Your task to perform on an android device: install app "PlayWell" Image 0: 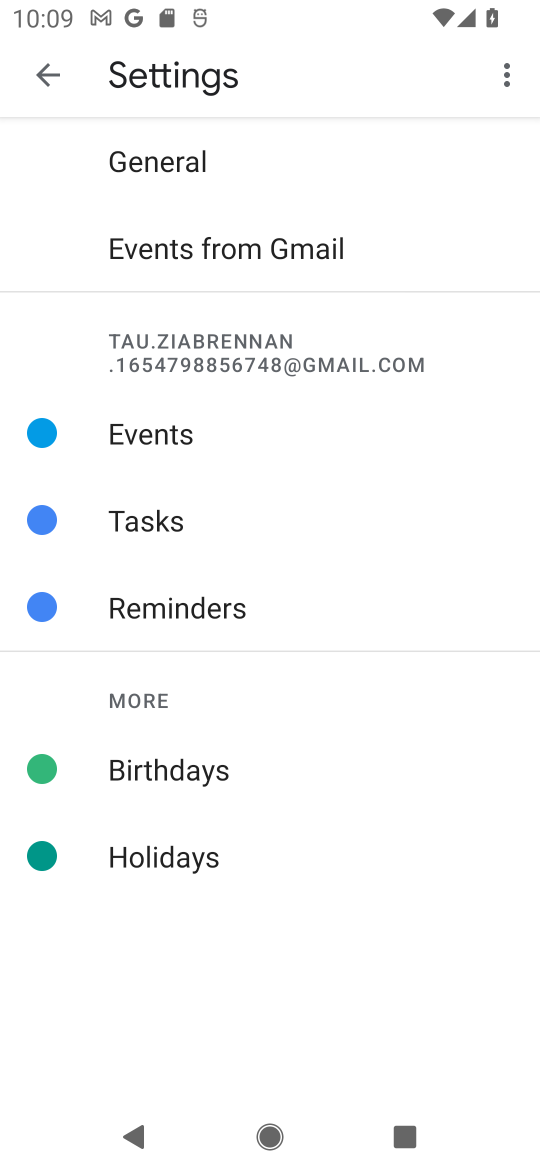
Step 0: click (39, 82)
Your task to perform on an android device: install app "PlayWell" Image 1: 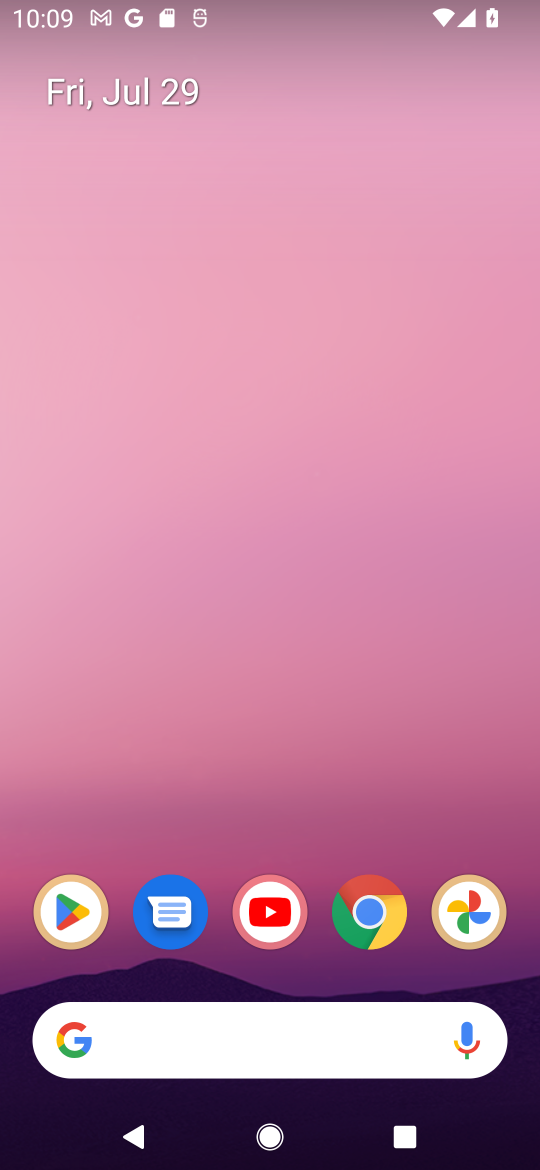
Step 1: drag from (236, 1006) to (242, 38)
Your task to perform on an android device: install app "PlayWell" Image 2: 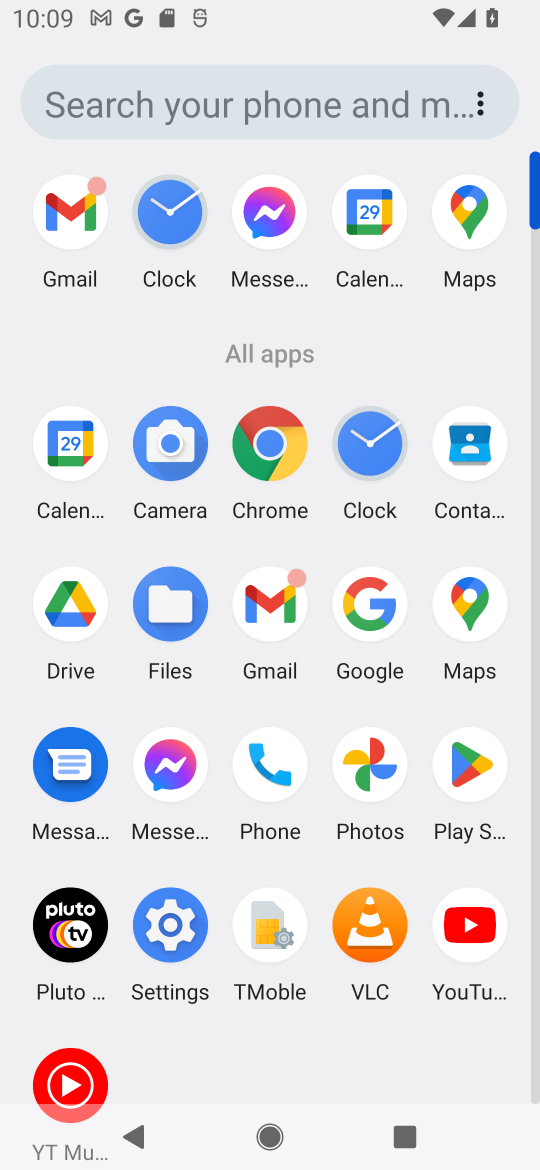
Step 2: click (467, 764)
Your task to perform on an android device: install app "PlayWell" Image 3: 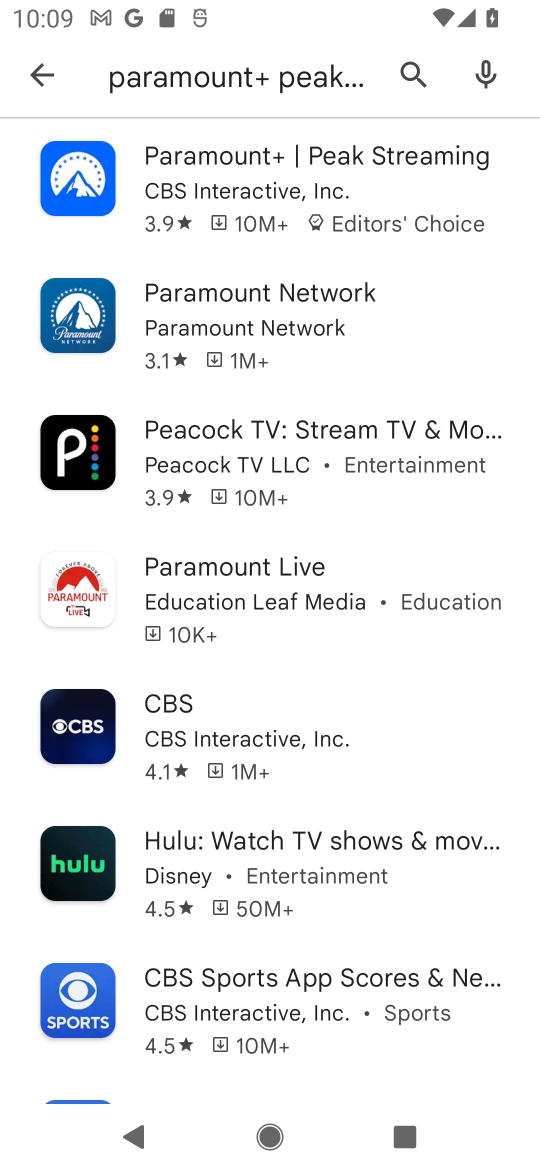
Step 3: click (408, 76)
Your task to perform on an android device: install app "PlayWell" Image 4: 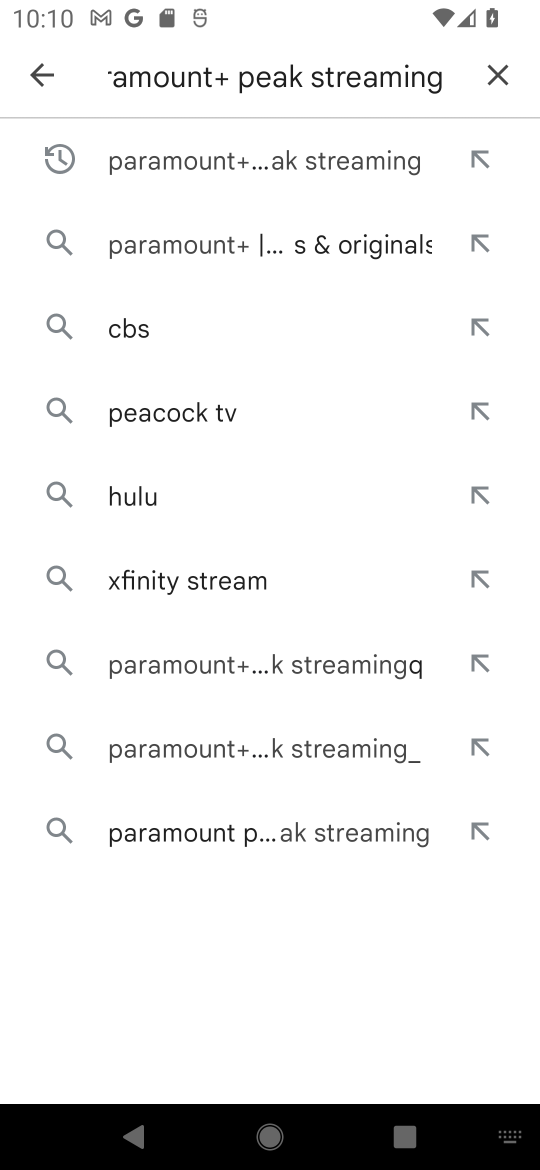
Step 4: click (494, 70)
Your task to perform on an android device: install app "PlayWell" Image 5: 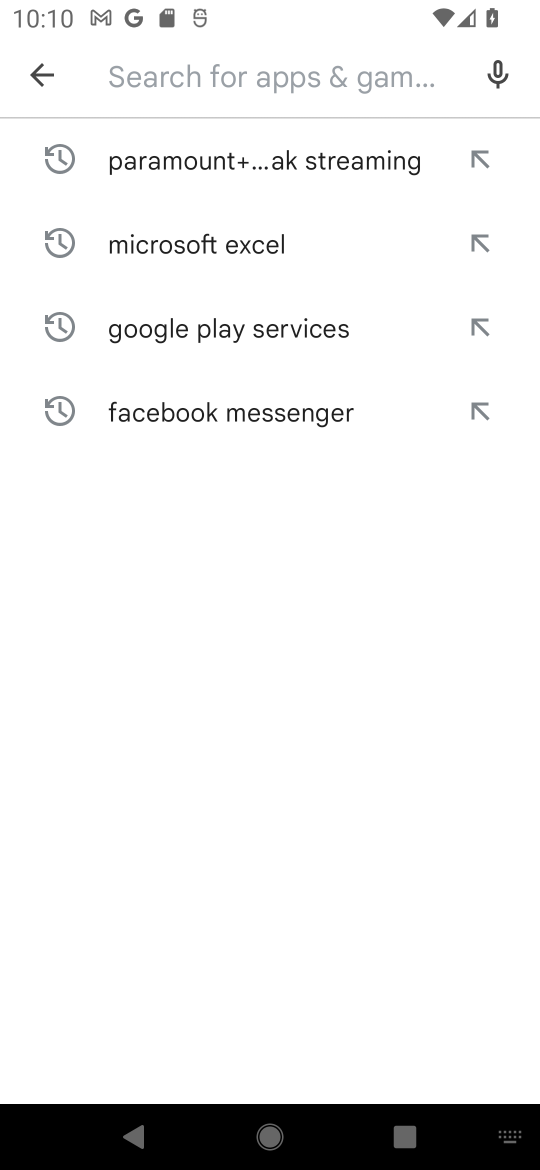
Step 5: type "PlayWell"
Your task to perform on an android device: install app "PlayWell" Image 6: 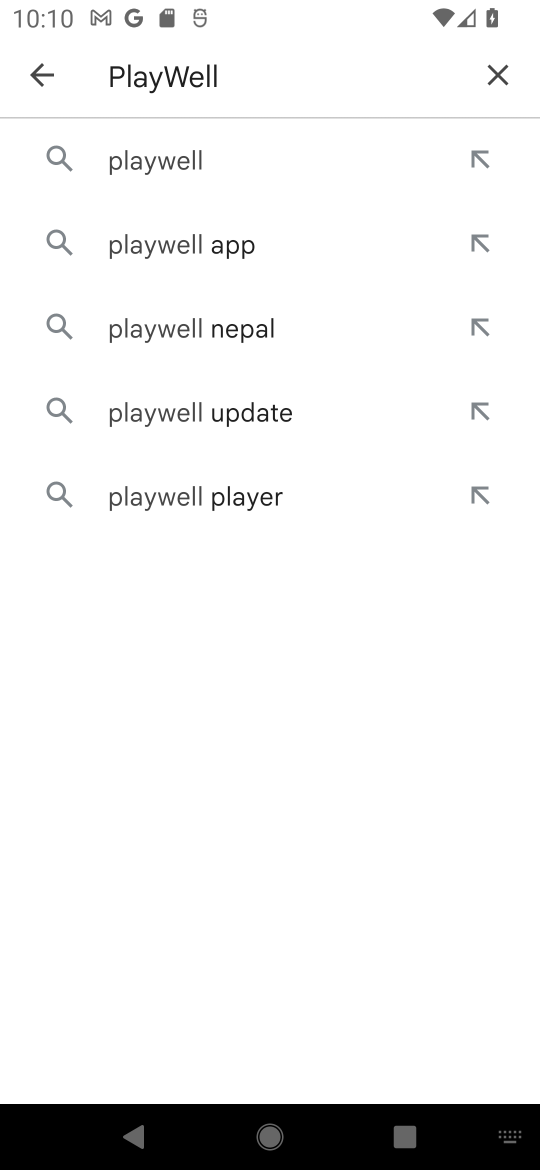
Step 6: click (176, 164)
Your task to perform on an android device: install app "PlayWell" Image 7: 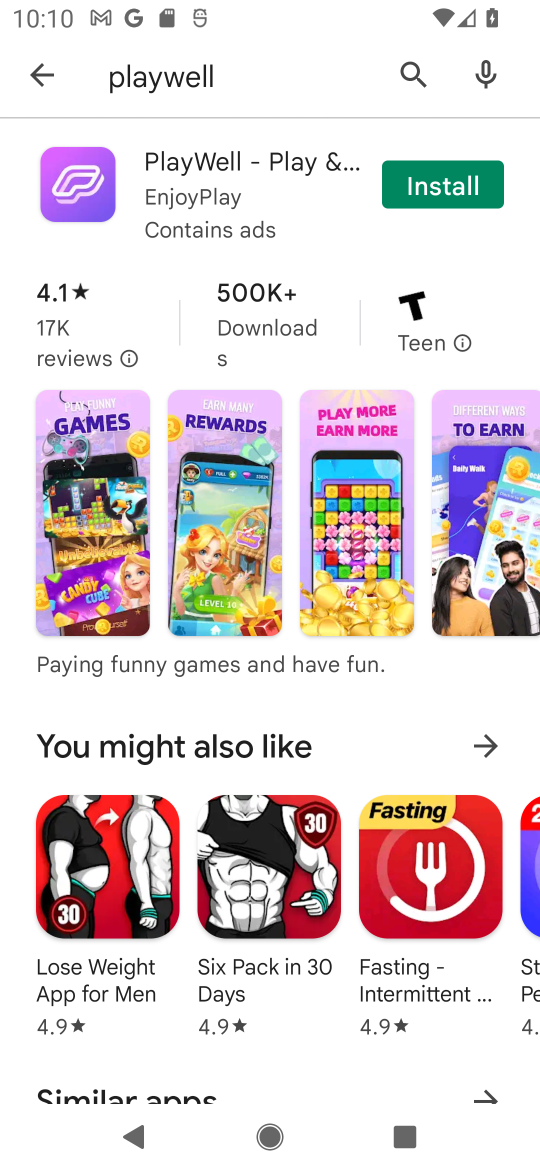
Step 7: click (462, 185)
Your task to perform on an android device: install app "PlayWell" Image 8: 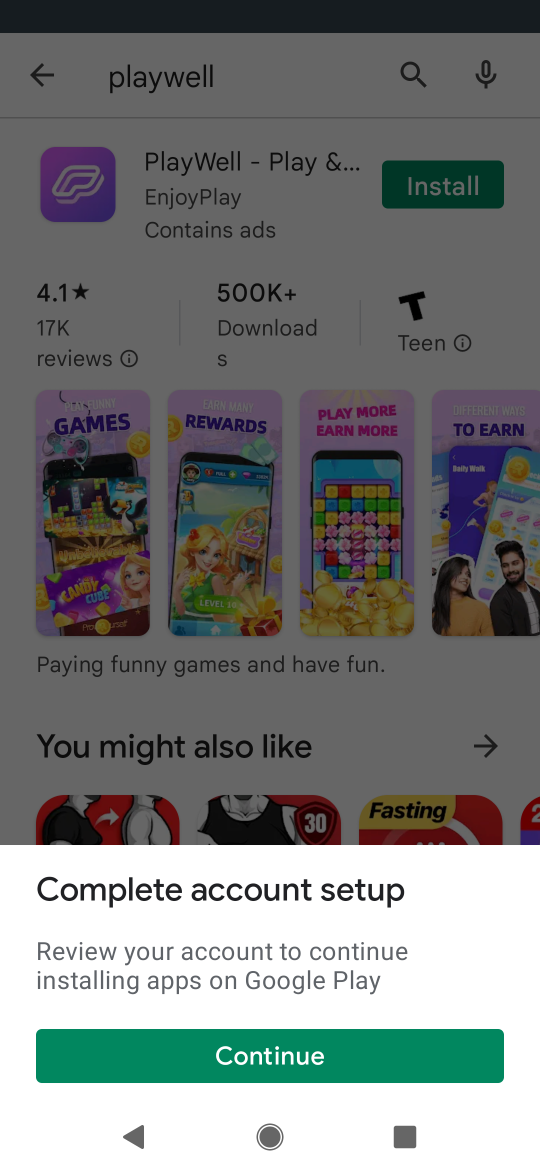
Step 8: click (289, 1058)
Your task to perform on an android device: install app "PlayWell" Image 9: 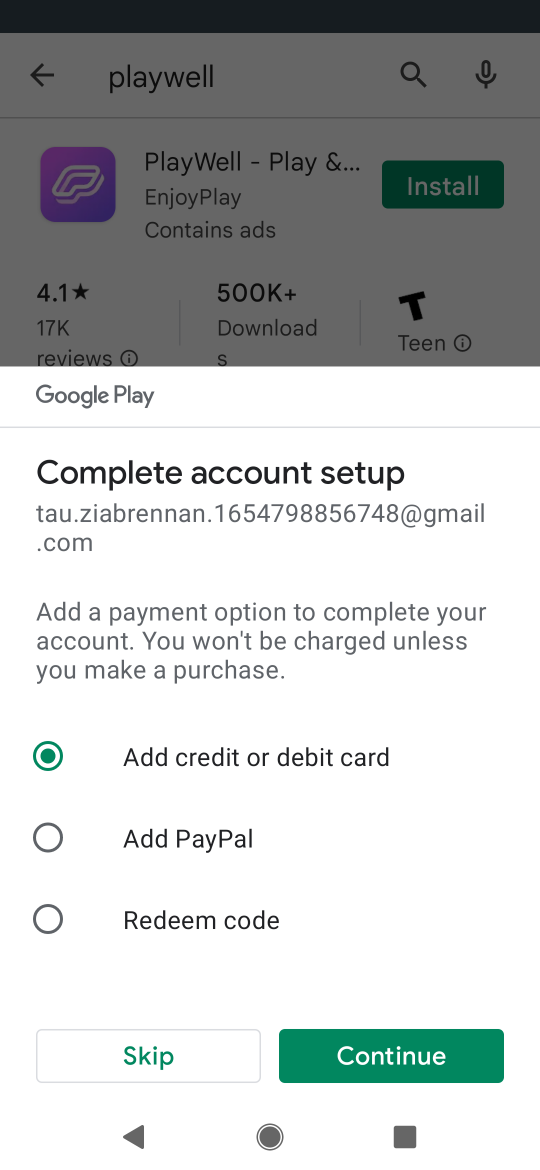
Step 9: click (207, 1059)
Your task to perform on an android device: install app "PlayWell" Image 10: 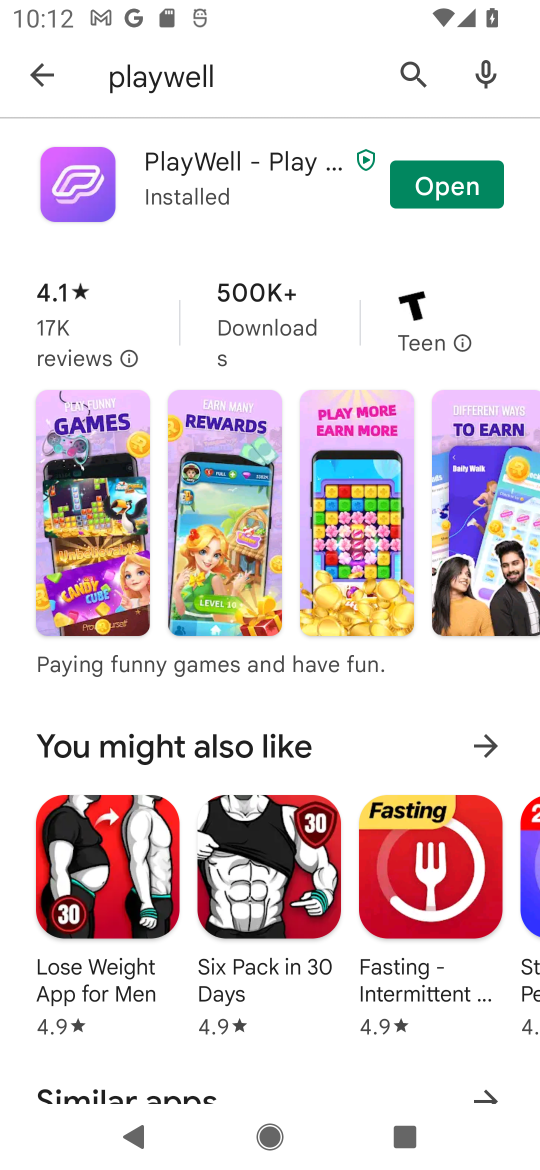
Step 10: task complete